Your task to perform on an android device: Set the phone to "Do not disturb". Image 0: 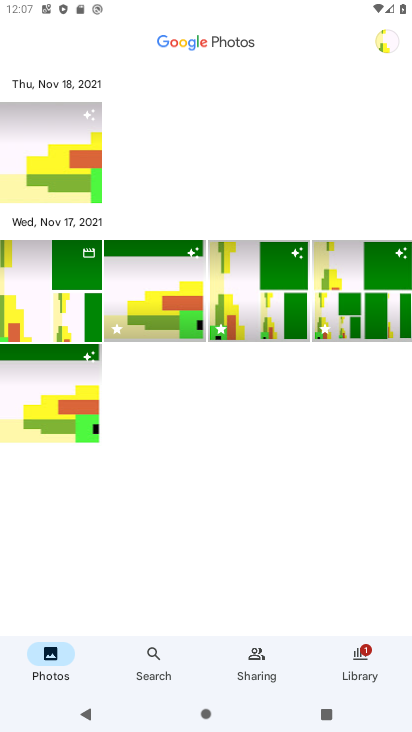
Step 0: press home button
Your task to perform on an android device: Set the phone to "Do not disturb". Image 1: 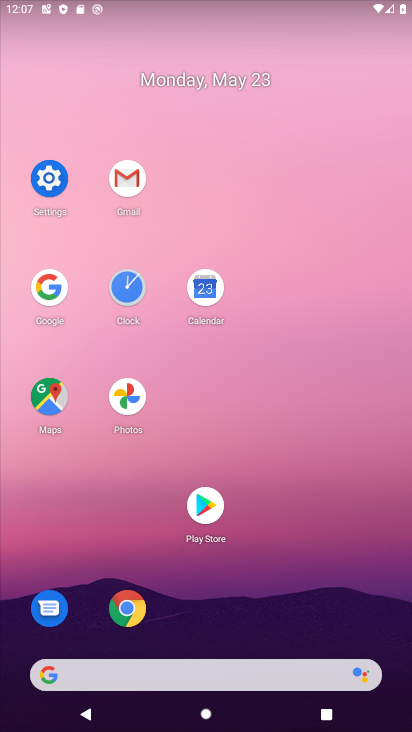
Step 1: click (72, 183)
Your task to perform on an android device: Set the phone to "Do not disturb". Image 2: 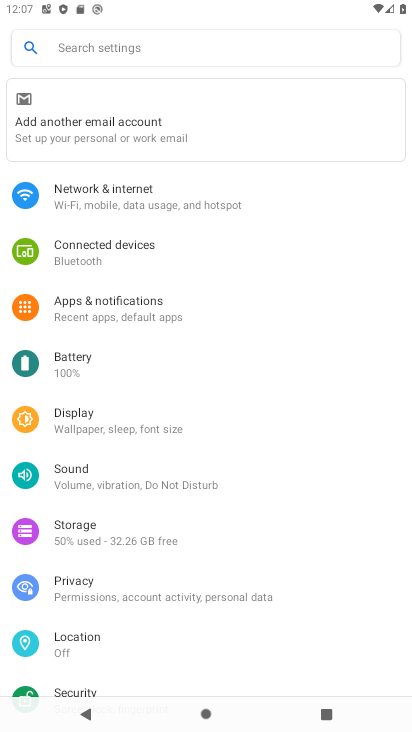
Step 2: click (272, 478)
Your task to perform on an android device: Set the phone to "Do not disturb". Image 3: 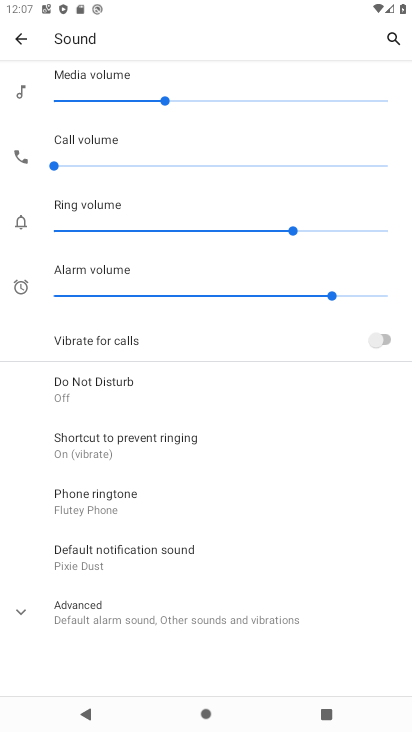
Step 3: click (98, 395)
Your task to perform on an android device: Set the phone to "Do not disturb". Image 4: 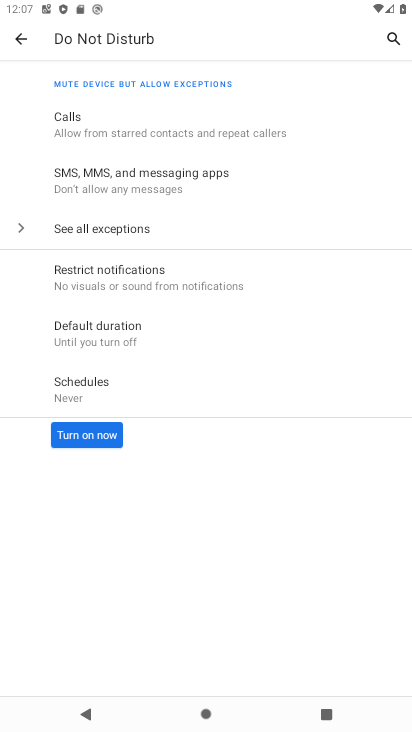
Step 4: click (119, 430)
Your task to perform on an android device: Set the phone to "Do not disturb". Image 5: 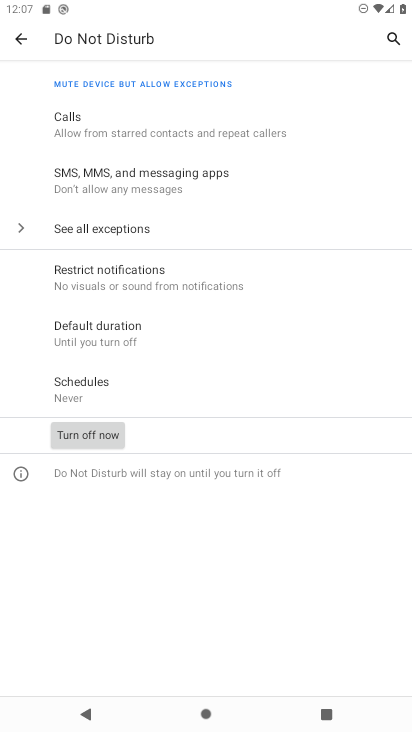
Step 5: task complete